Your task to perform on an android device: see sites visited before in the chrome app Image 0: 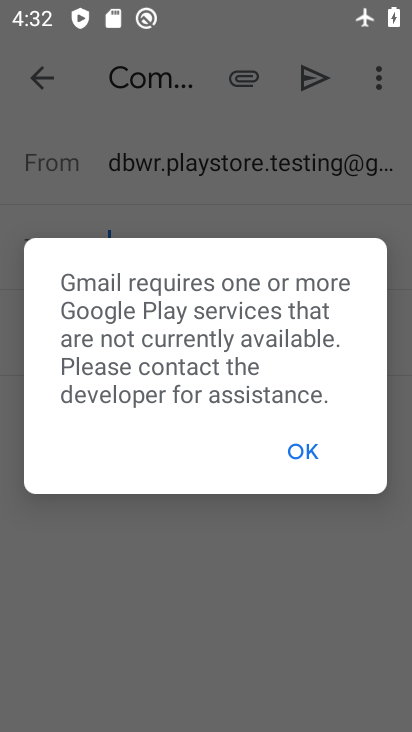
Step 0: press back button
Your task to perform on an android device: see sites visited before in the chrome app Image 1: 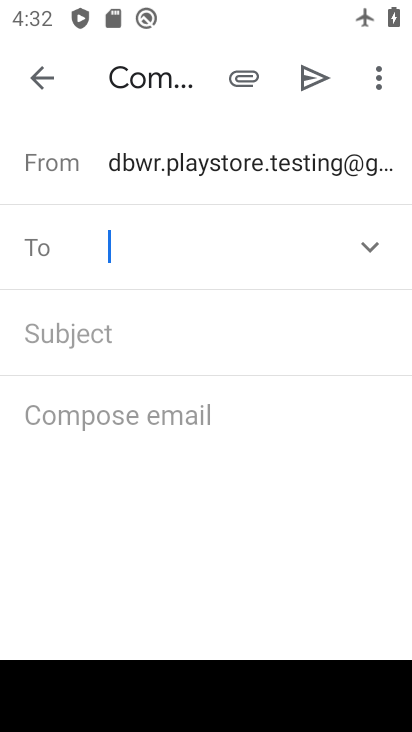
Step 1: press home button
Your task to perform on an android device: see sites visited before in the chrome app Image 2: 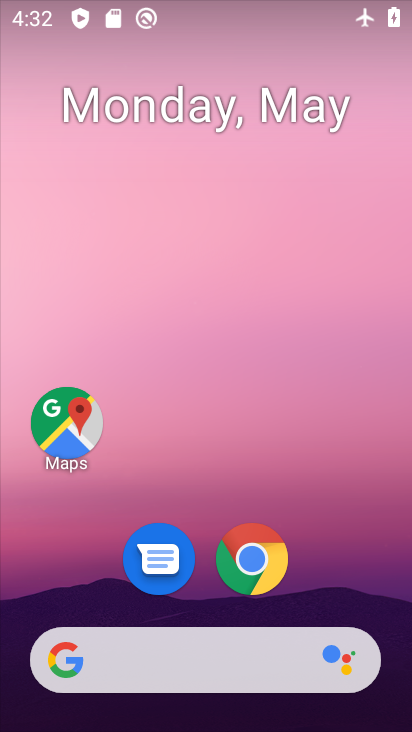
Step 2: drag from (347, 565) to (211, 12)
Your task to perform on an android device: see sites visited before in the chrome app Image 3: 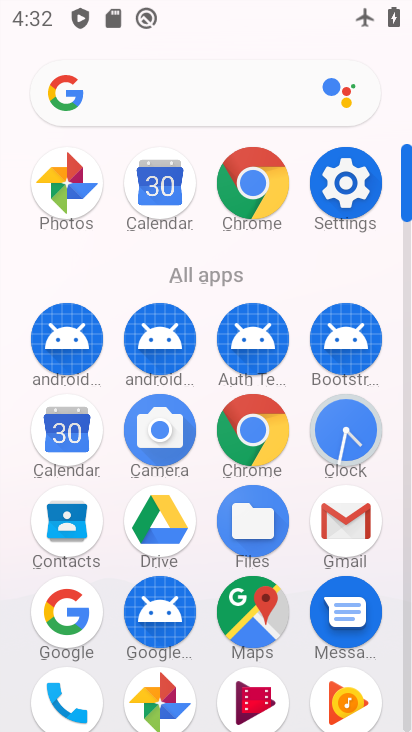
Step 3: drag from (18, 558) to (22, 278)
Your task to perform on an android device: see sites visited before in the chrome app Image 4: 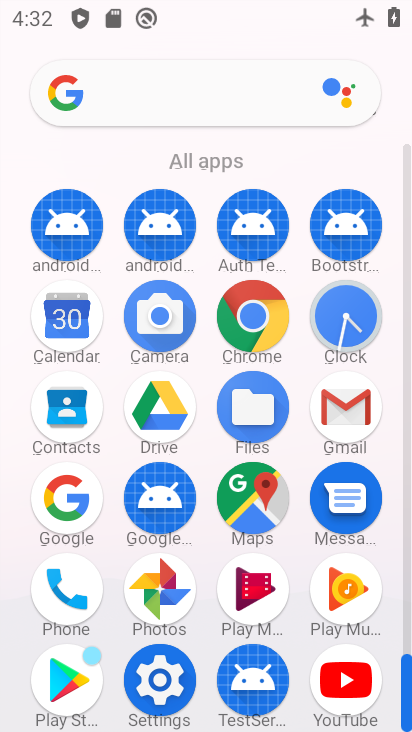
Step 4: click (256, 310)
Your task to perform on an android device: see sites visited before in the chrome app Image 5: 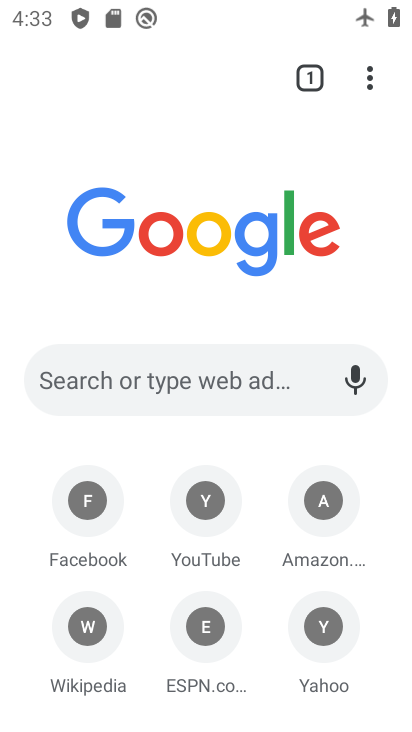
Step 5: task complete